Your task to perform on an android device: Open the map Image 0: 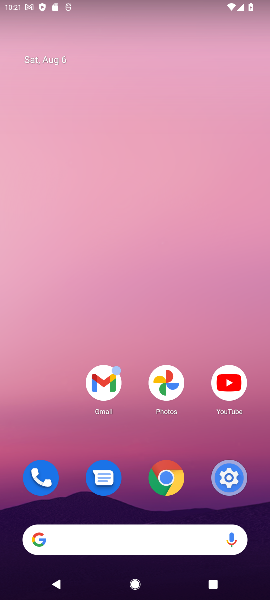
Step 0: drag from (134, 506) to (132, 49)
Your task to perform on an android device: Open the map Image 1: 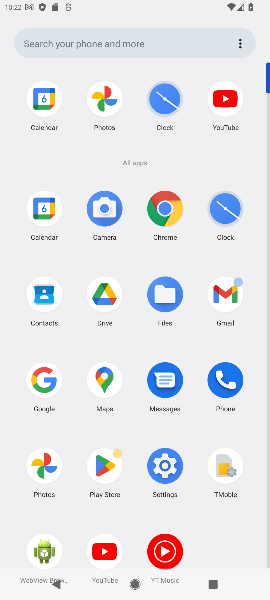
Step 1: click (103, 378)
Your task to perform on an android device: Open the map Image 2: 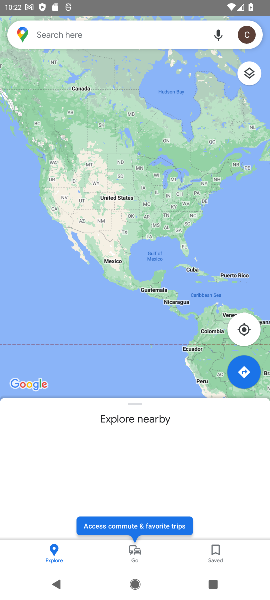
Step 2: task complete